Your task to perform on an android device: change notifications settings Image 0: 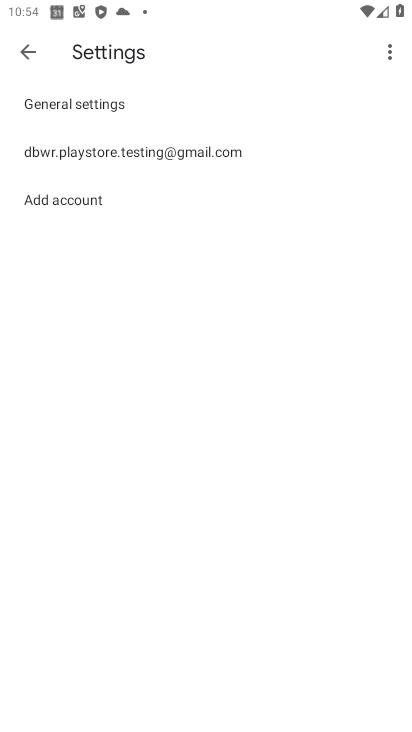
Step 0: click (101, 116)
Your task to perform on an android device: change notifications settings Image 1: 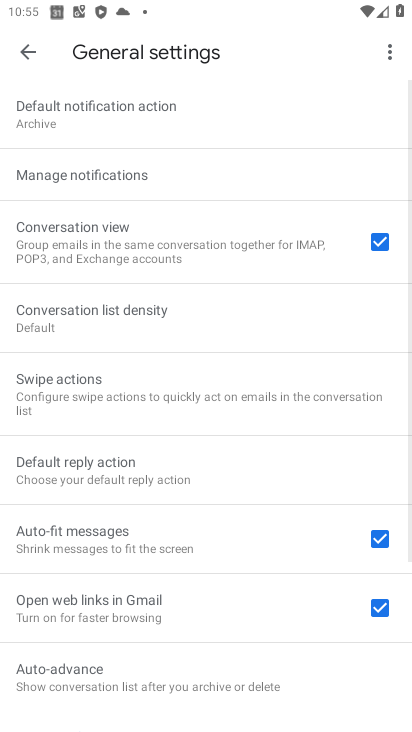
Step 1: click (120, 181)
Your task to perform on an android device: change notifications settings Image 2: 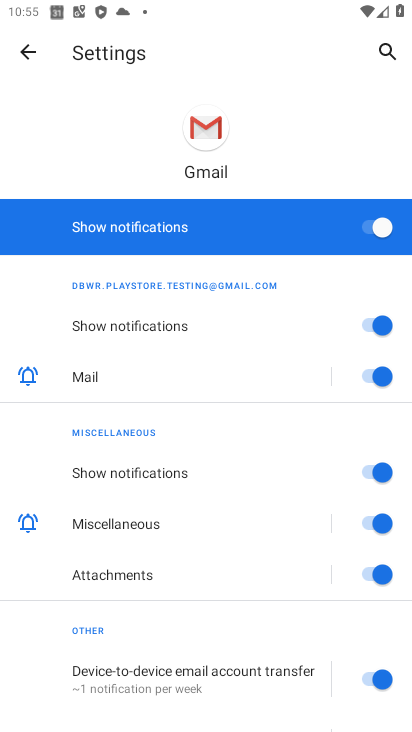
Step 2: click (154, 224)
Your task to perform on an android device: change notifications settings Image 3: 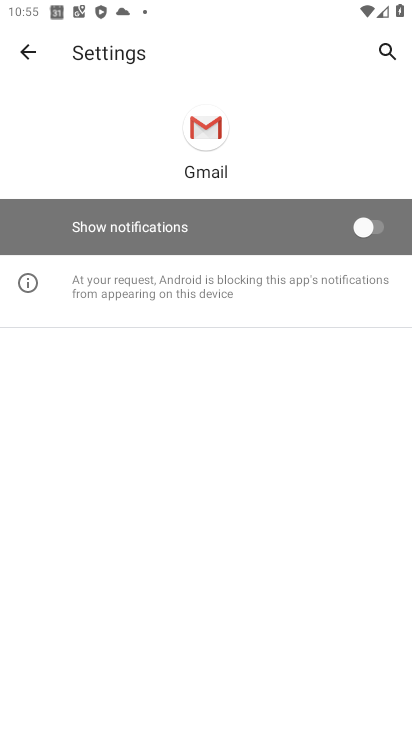
Step 3: task complete